Your task to perform on an android device: choose inbox layout in the gmail app Image 0: 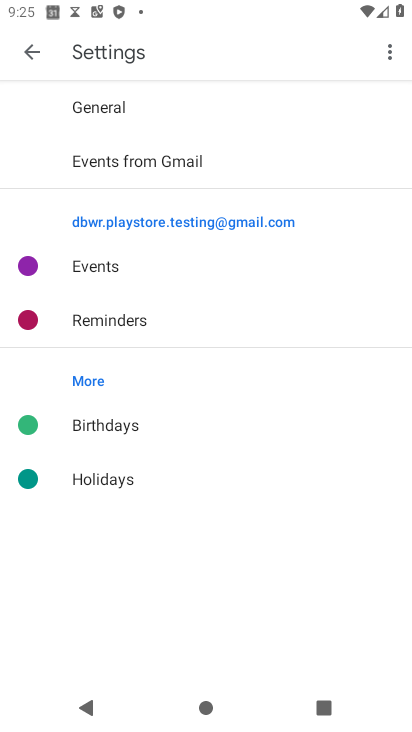
Step 0: press home button
Your task to perform on an android device: choose inbox layout in the gmail app Image 1: 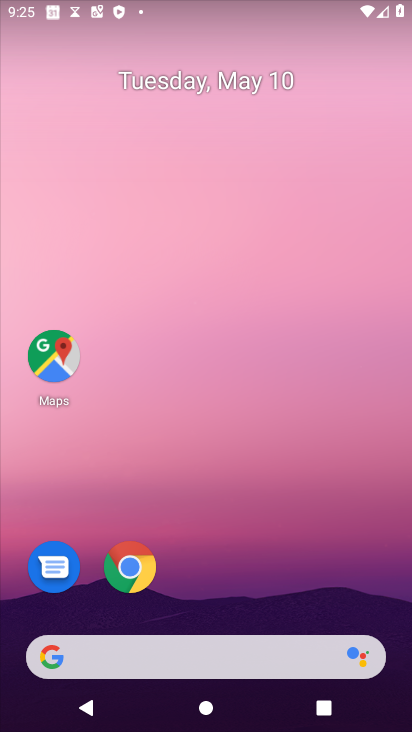
Step 1: drag from (31, 542) to (234, 159)
Your task to perform on an android device: choose inbox layout in the gmail app Image 2: 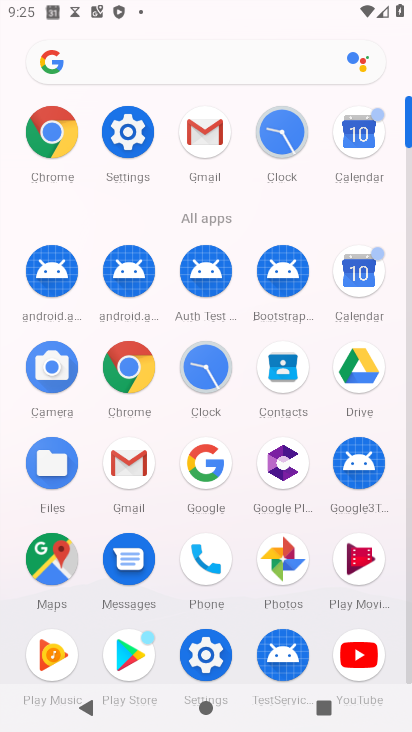
Step 2: click (126, 122)
Your task to perform on an android device: choose inbox layout in the gmail app Image 3: 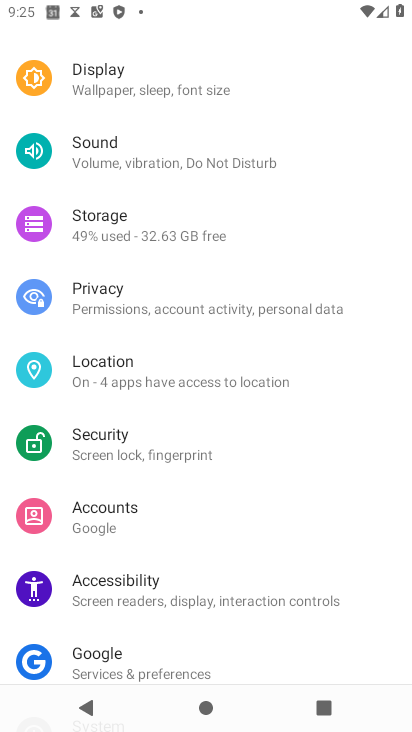
Step 3: drag from (129, 632) to (266, 146)
Your task to perform on an android device: choose inbox layout in the gmail app Image 4: 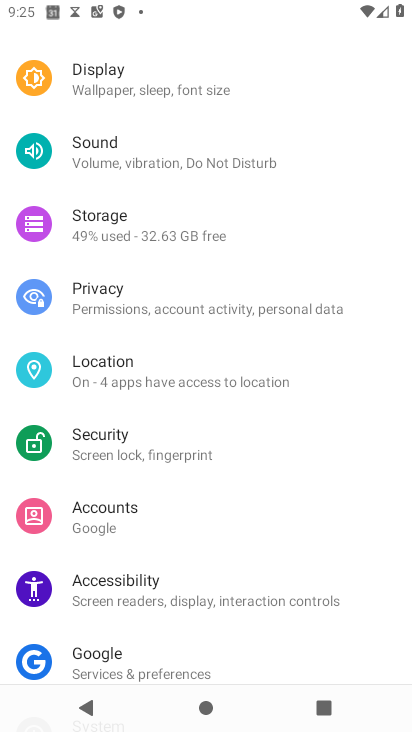
Step 4: drag from (20, 694) to (284, 162)
Your task to perform on an android device: choose inbox layout in the gmail app Image 5: 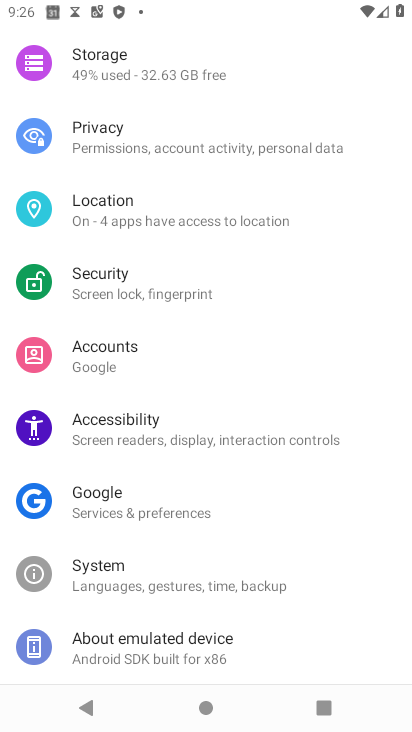
Step 5: press home button
Your task to perform on an android device: choose inbox layout in the gmail app Image 6: 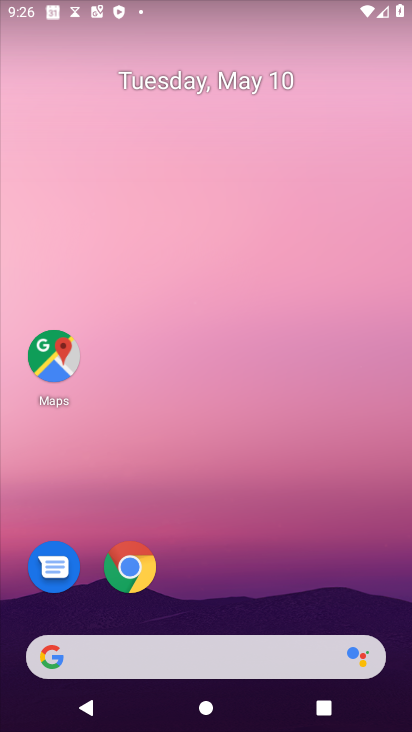
Step 6: drag from (33, 591) to (249, 268)
Your task to perform on an android device: choose inbox layout in the gmail app Image 7: 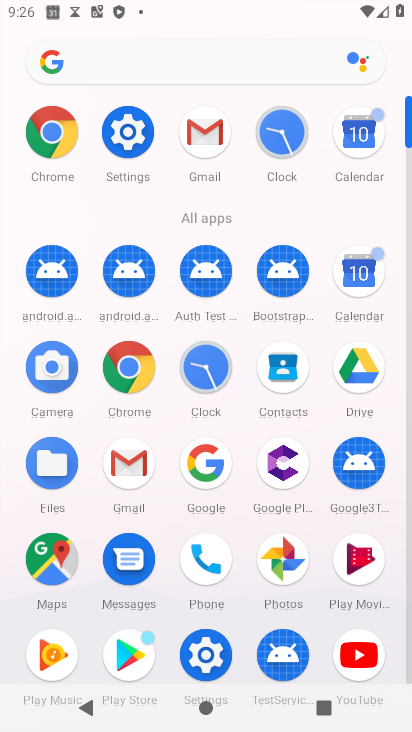
Step 7: click (130, 464)
Your task to perform on an android device: choose inbox layout in the gmail app Image 8: 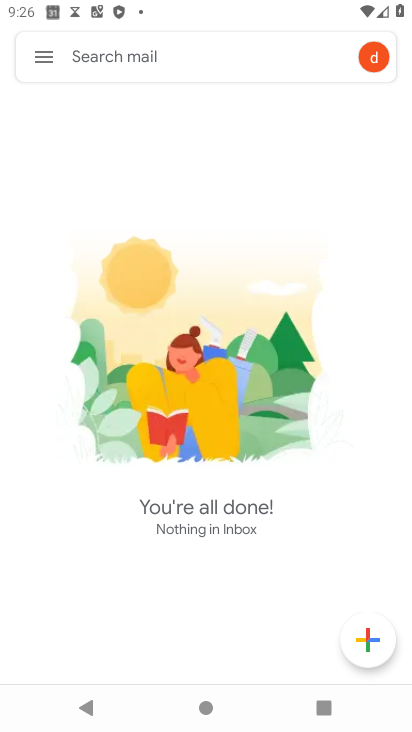
Step 8: click (38, 70)
Your task to perform on an android device: choose inbox layout in the gmail app Image 9: 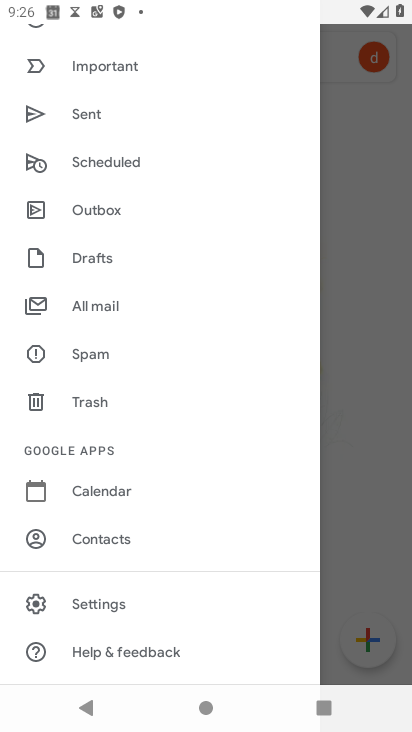
Step 9: click (89, 602)
Your task to perform on an android device: choose inbox layout in the gmail app Image 10: 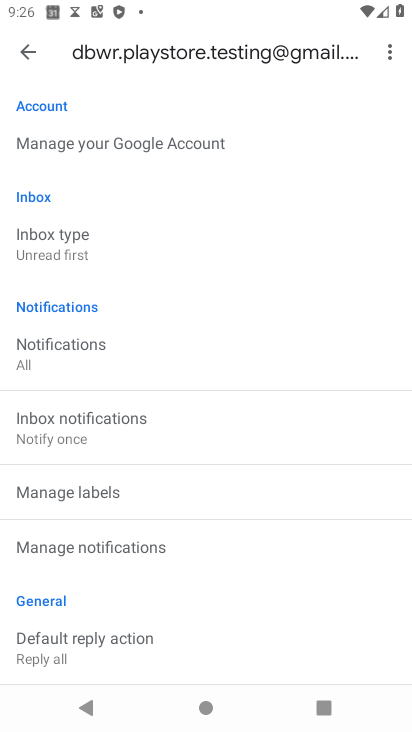
Step 10: click (120, 247)
Your task to perform on an android device: choose inbox layout in the gmail app Image 11: 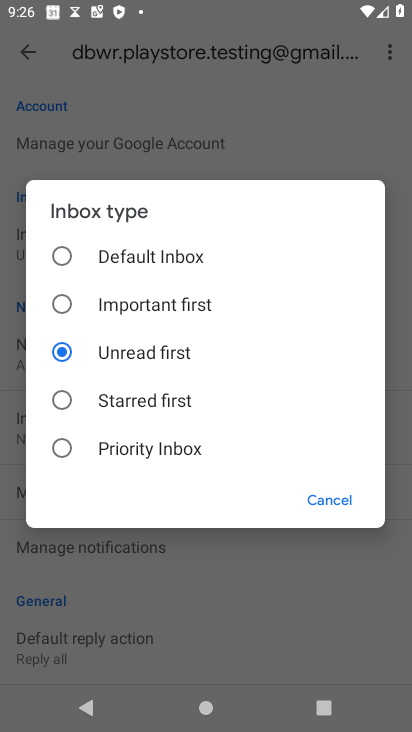
Step 11: task complete